Your task to perform on an android device: turn on priority inbox in the gmail app Image 0: 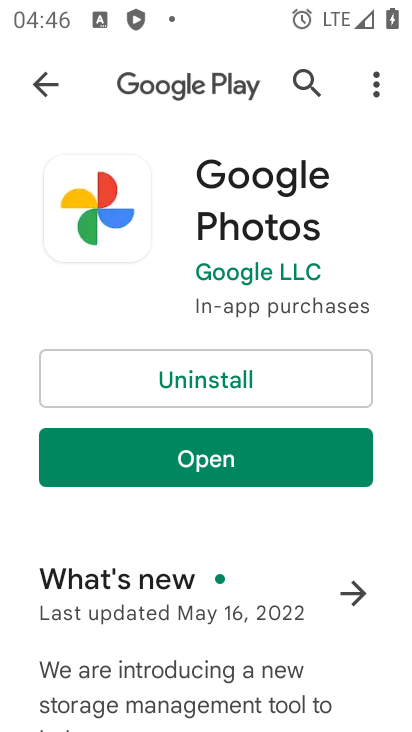
Step 0: press home button
Your task to perform on an android device: turn on priority inbox in the gmail app Image 1: 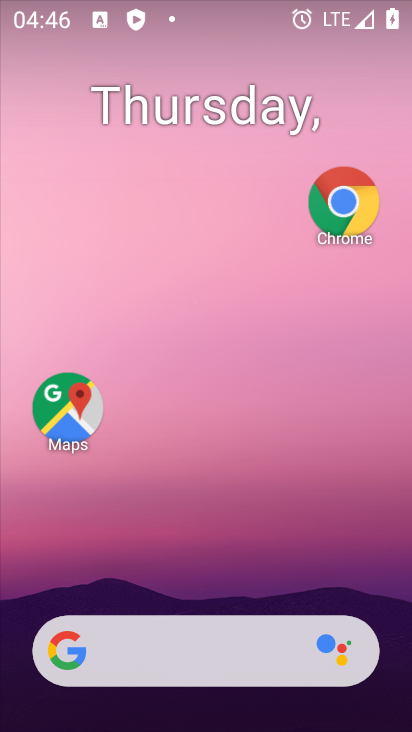
Step 1: drag from (244, 605) to (315, 6)
Your task to perform on an android device: turn on priority inbox in the gmail app Image 2: 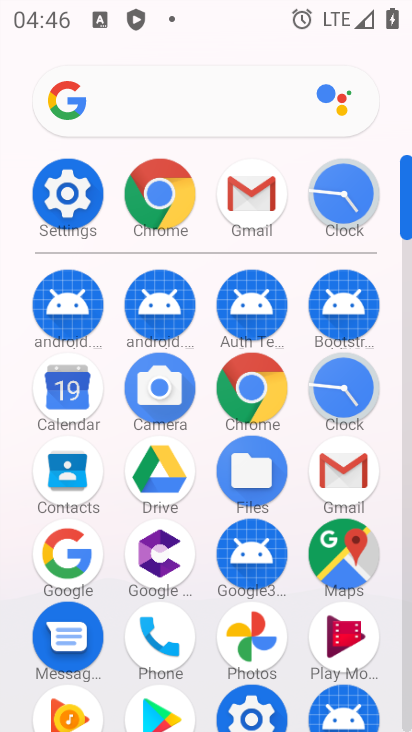
Step 2: click (366, 459)
Your task to perform on an android device: turn on priority inbox in the gmail app Image 3: 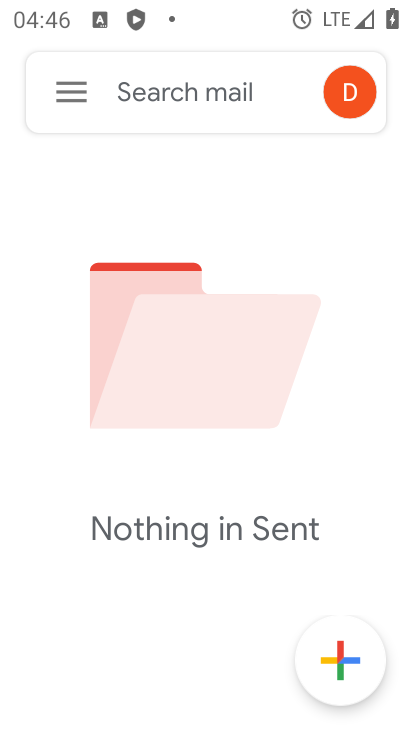
Step 3: click (78, 82)
Your task to perform on an android device: turn on priority inbox in the gmail app Image 4: 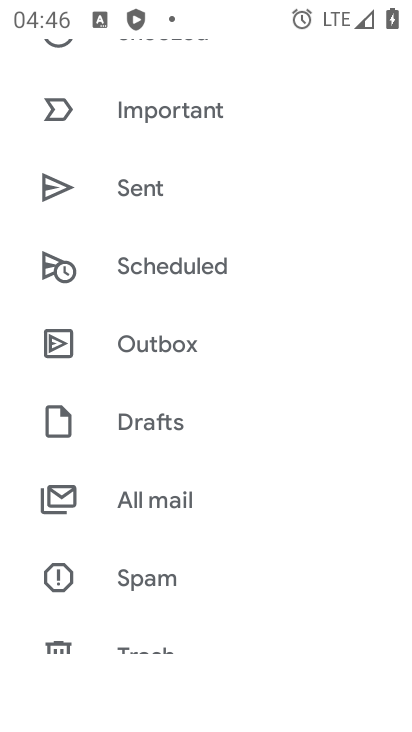
Step 4: drag from (179, 583) to (254, 12)
Your task to perform on an android device: turn on priority inbox in the gmail app Image 5: 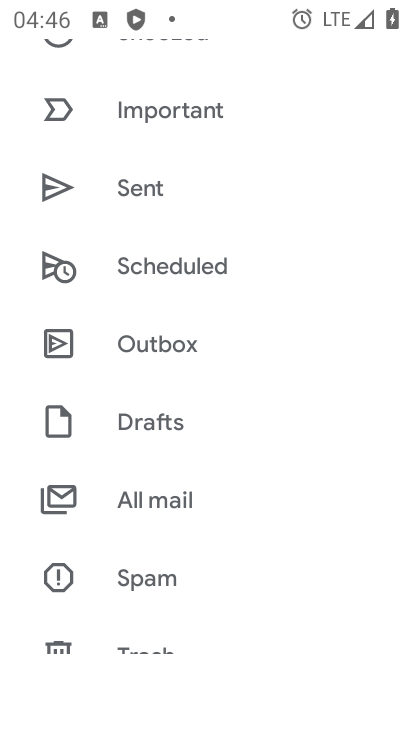
Step 5: drag from (189, 639) to (179, 1)
Your task to perform on an android device: turn on priority inbox in the gmail app Image 6: 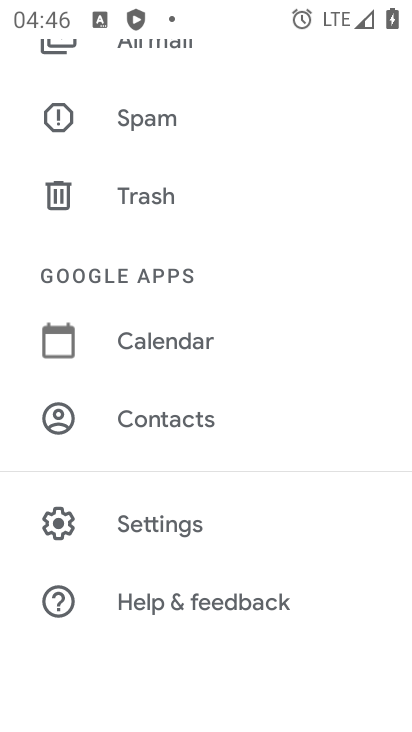
Step 6: click (147, 525)
Your task to perform on an android device: turn on priority inbox in the gmail app Image 7: 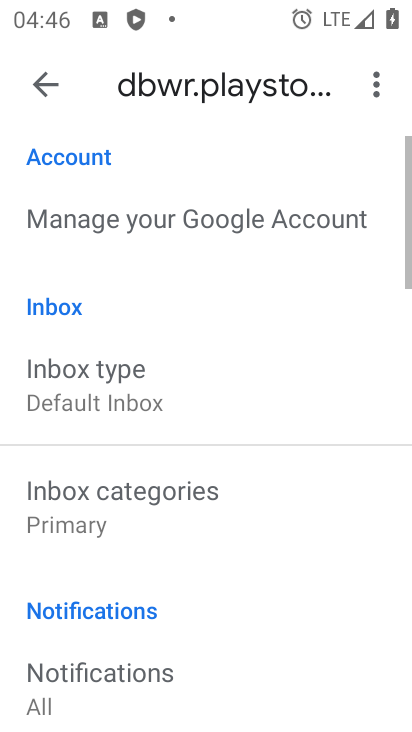
Step 7: click (120, 387)
Your task to perform on an android device: turn on priority inbox in the gmail app Image 8: 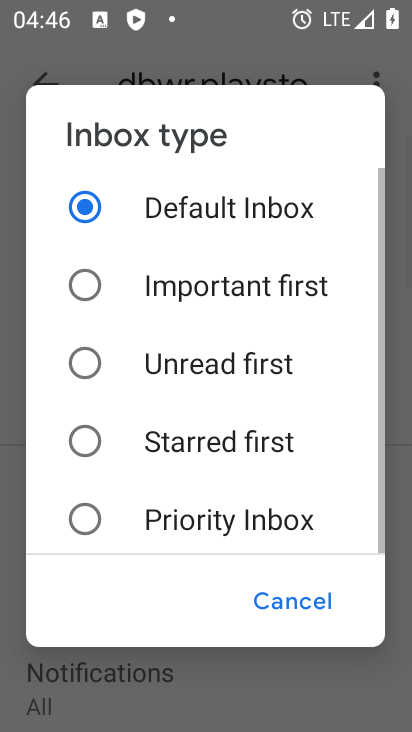
Step 8: click (85, 518)
Your task to perform on an android device: turn on priority inbox in the gmail app Image 9: 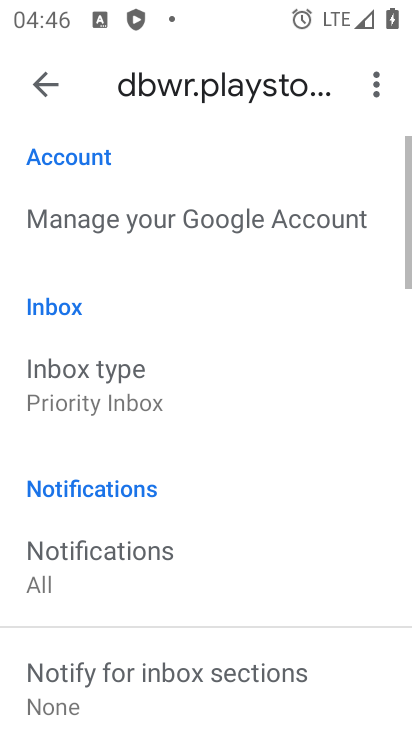
Step 9: task complete